Your task to perform on an android device: What's the weather? Image 0: 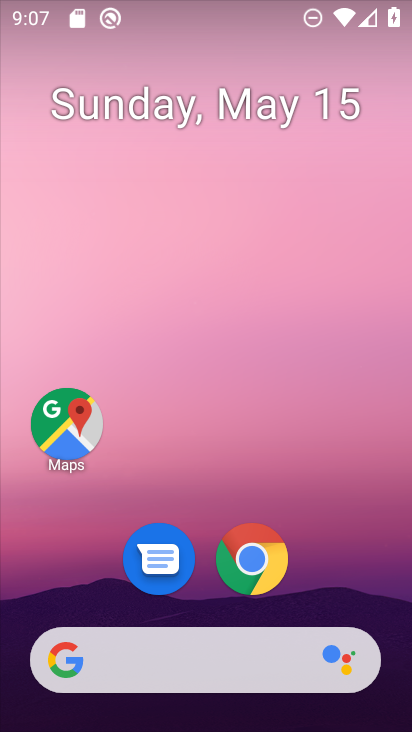
Step 0: click (242, 650)
Your task to perform on an android device: What's the weather? Image 1: 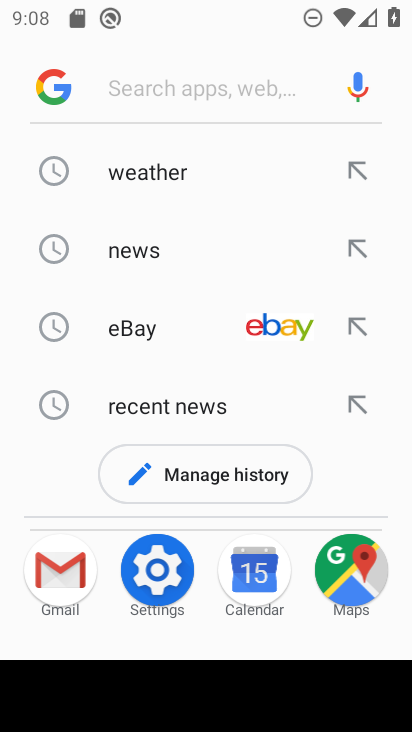
Step 1: click (213, 192)
Your task to perform on an android device: What's the weather? Image 2: 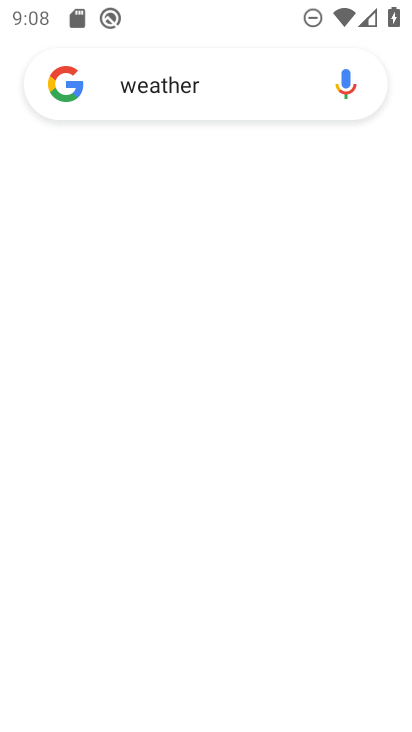
Step 2: task complete